Your task to perform on an android device: open a bookmark in the chrome app Image 0: 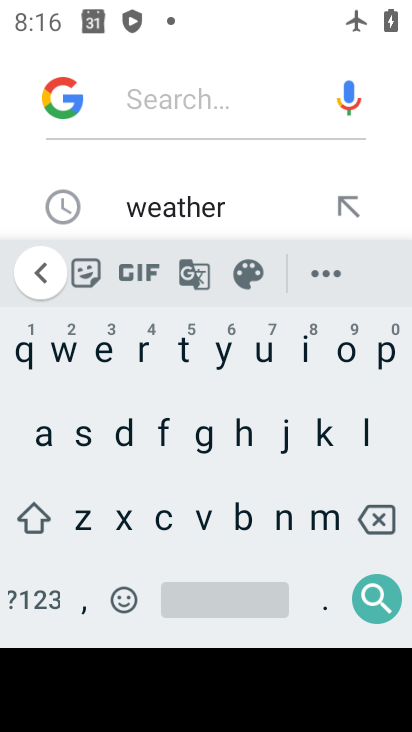
Step 0: press home button
Your task to perform on an android device: open a bookmark in the chrome app Image 1: 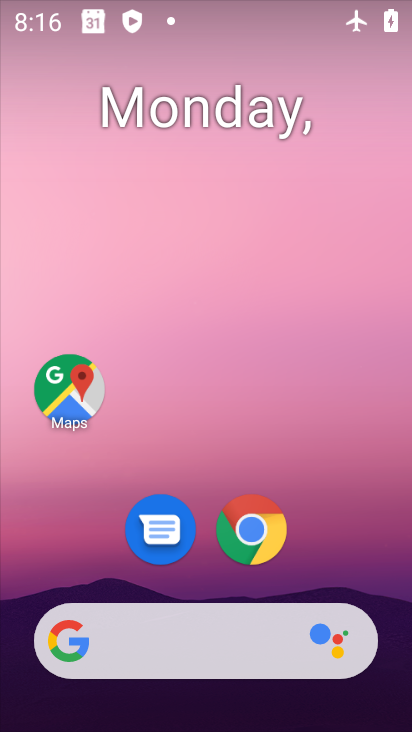
Step 1: drag from (326, 691) to (218, 267)
Your task to perform on an android device: open a bookmark in the chrome app Image 2: 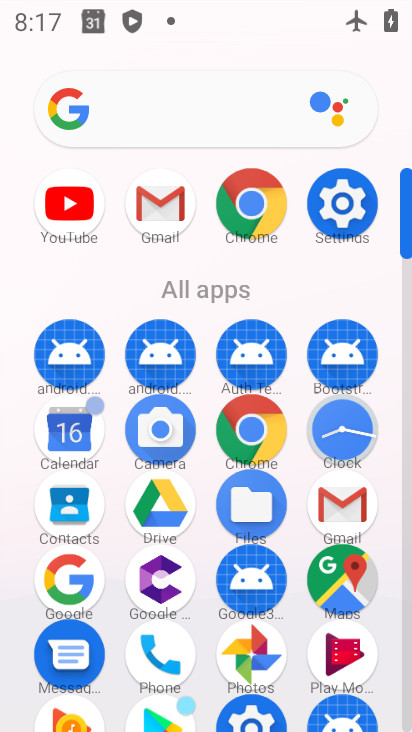
Step 2: click (278, 206)
Your task to perform on an android device: open a bookmark in the chrome app Image 3: 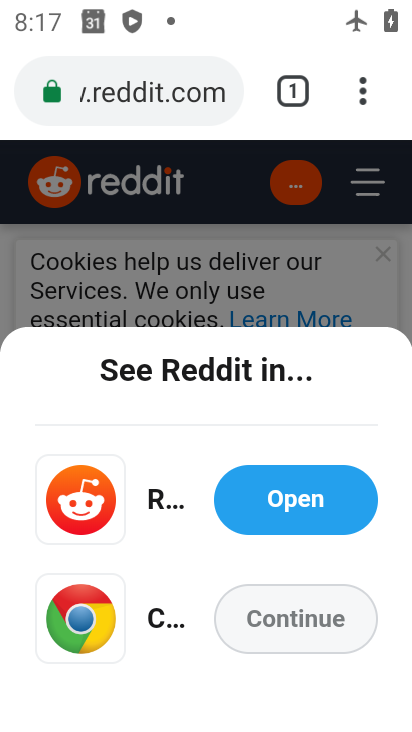
Step 3: click (368, 96)
Your task to perform on an android device: open a bookmark in the chrome app Image 4: 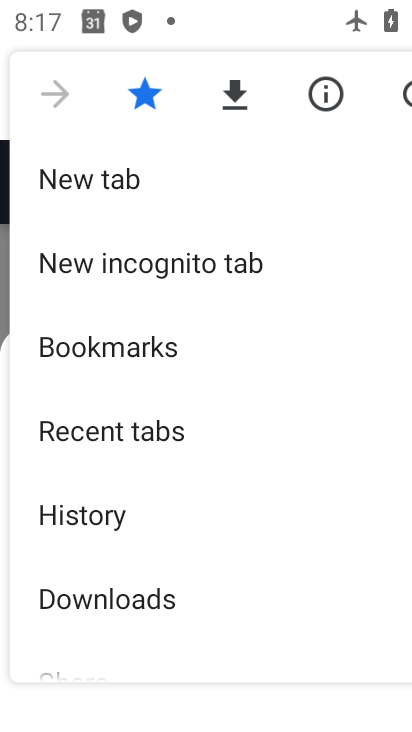
Step 4: click (98, 352)
Your task to perform on an android device: open a bookmark in the chrome app Image 5: 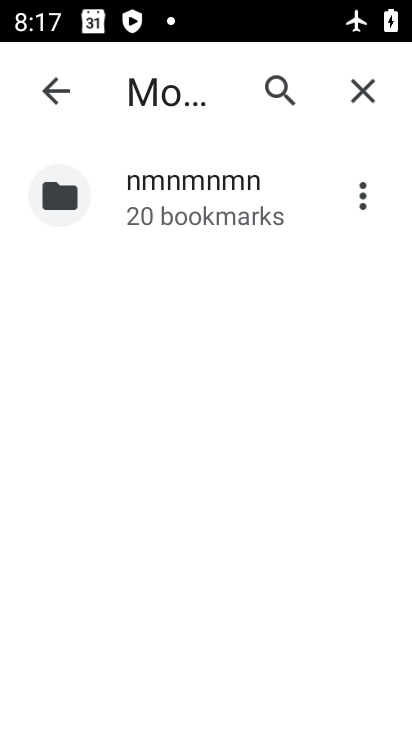
Step 5: click (180, 203)
Your task to perform on an android device: open a bookmark in the chrome app Image 6: 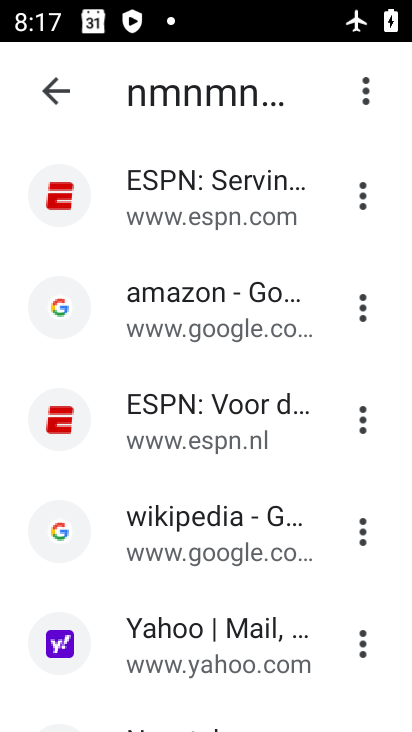
Step 6: click (185, 340)
Your task to perform on an android device: open a bookmark in the chrome app Image 7: 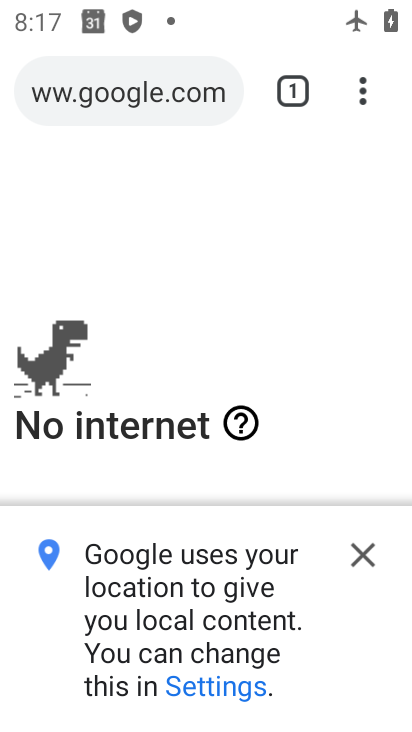
Step 7: press home button
Your task to perform on an android device: open a bookmark in the chrome app Image 8: 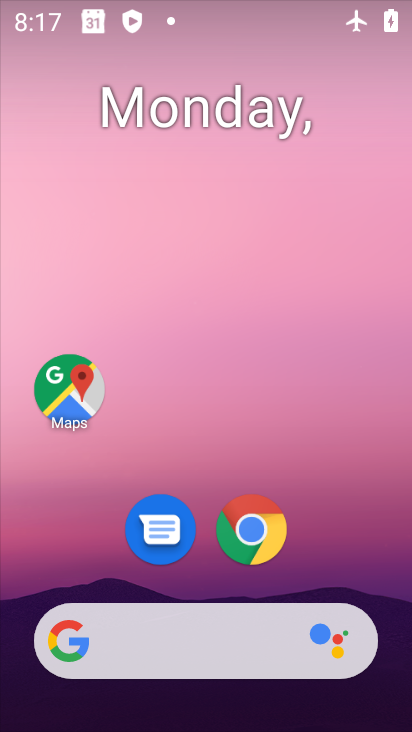
Step 8: drag from (226, 681) to (317, 215)
Your task to perform on an android device: open a bookmark in the chrome app Image 9: 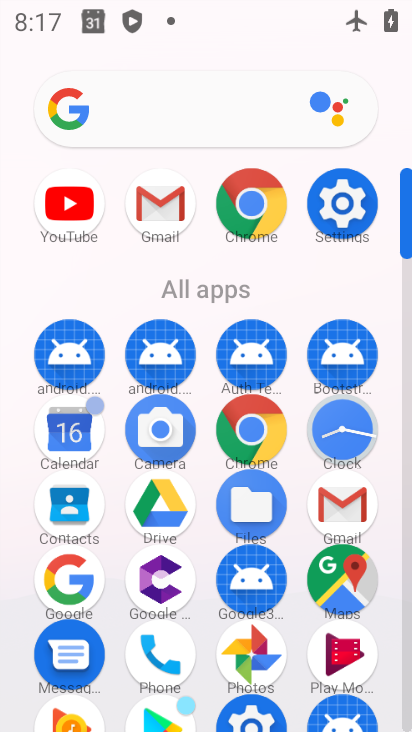
Step 9: click (344, 217)
Your task to perform on an android device: open a bookmark in the chrome app Image 10: 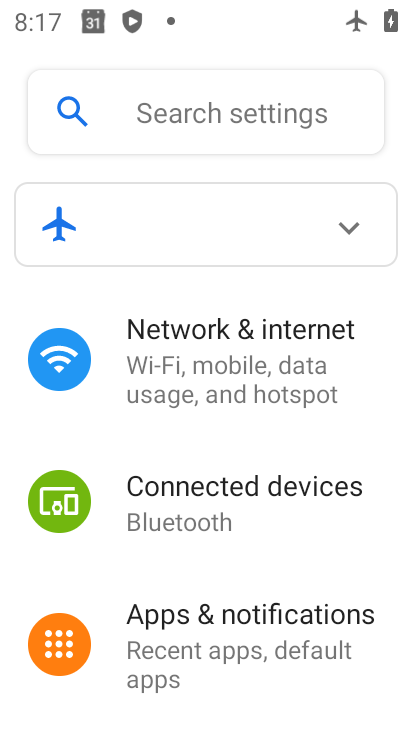
Step 10: click (348, 224)
Your task to perform on an android device: open a bookmark in the chrome app Image 11: 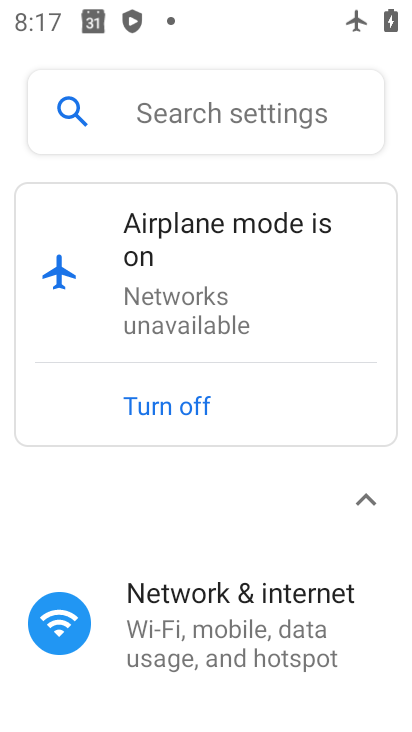
Step 11: click (162, 401)
Your task to perform on an android device: open a bookmark in the chrome app Image 12: 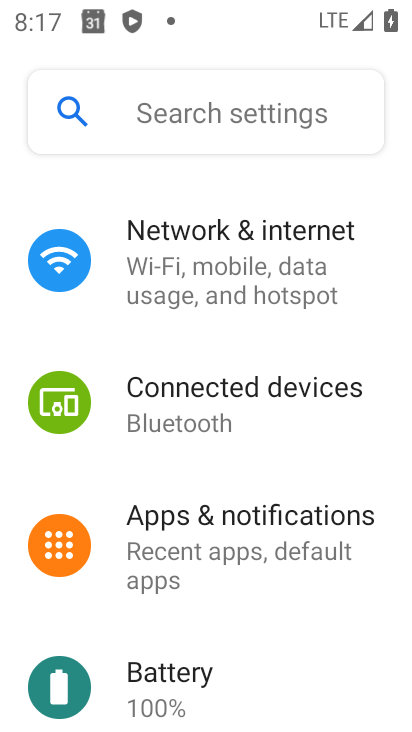
Step 12: press home button
Your task to perform on an android device: open a bookmark in the chrome app Image 13: 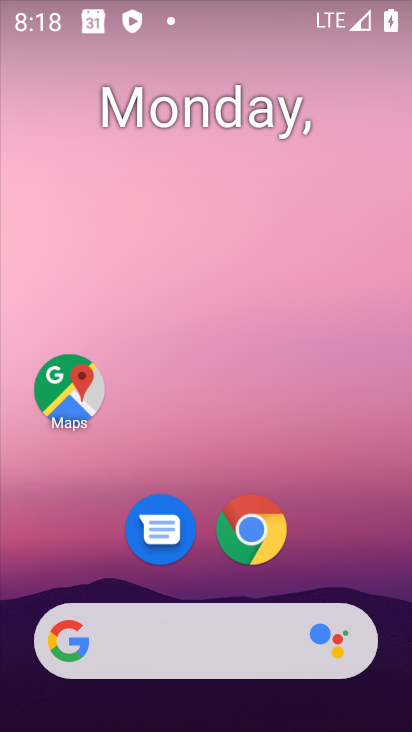
Step 13: click (217, 530)
Your task to perform on an android device: open a bookmark in the chrome app Image 14: 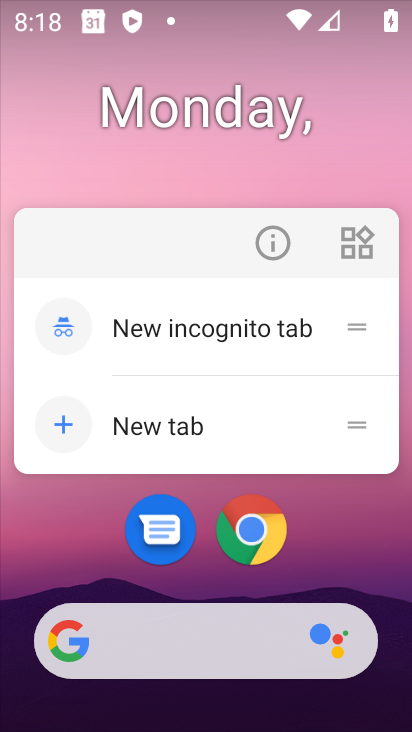
Step 14: click (278, 521)
Your task to perform on an android device: open a bookmark in the chrome app Image 15: 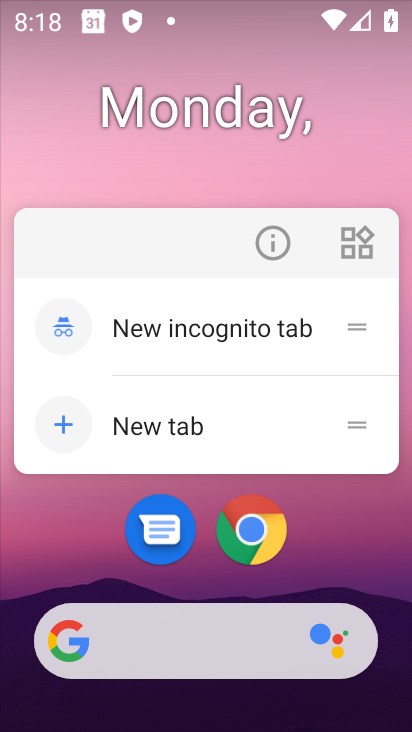
Step 15: click (260, 531)
Your task to perform on an android device: open a bookmark in the chrome app Image 16: 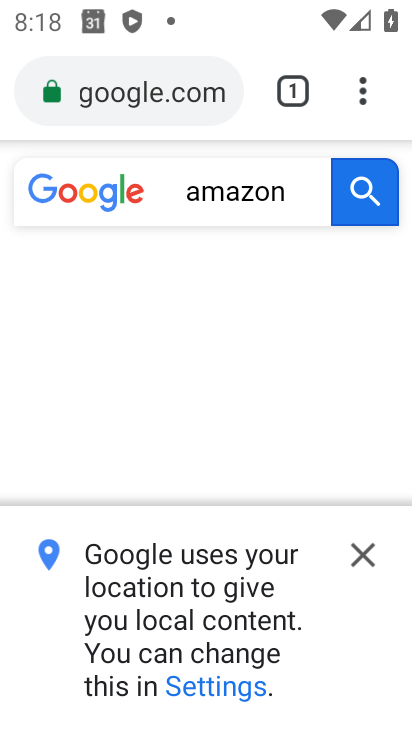
Step 16: click (352, 557)
Your task to perform on an android device: open a bookmark in the chrome app Image 17: 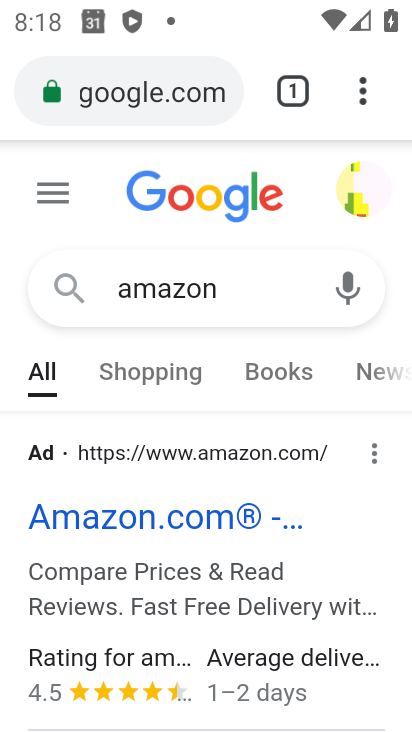
Step 17: task complete